Your task to perform on an android device: move a message to another label in the gmail app Image 0: 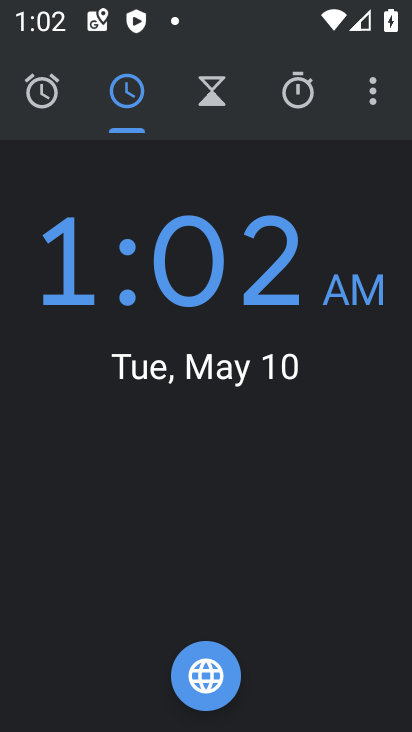
Step 0: press back button
Your task to perform on an android device: move a message to another label in the gmail app Image 1: 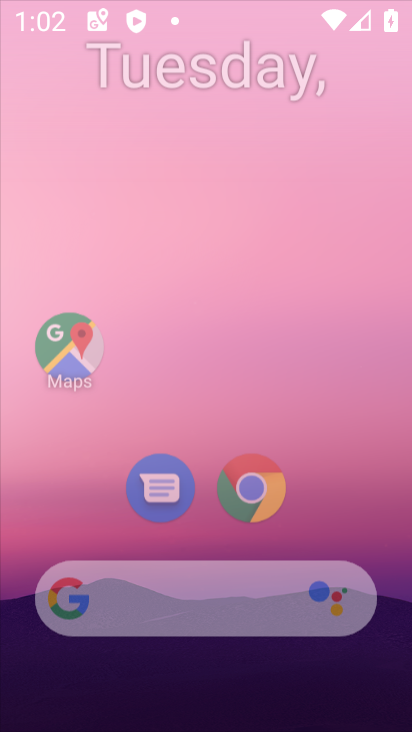
Step 1: press home button
Your task to perform on an android device: move a message to another label in the gmail app Image 2: 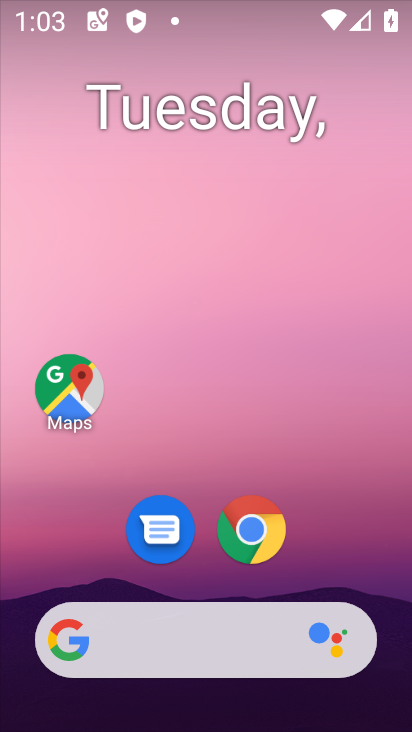
Step 2: drag from (175, 599) to (316, 56)
Your task to perform on an android device: move a message to another label in the gmail app Image 3: 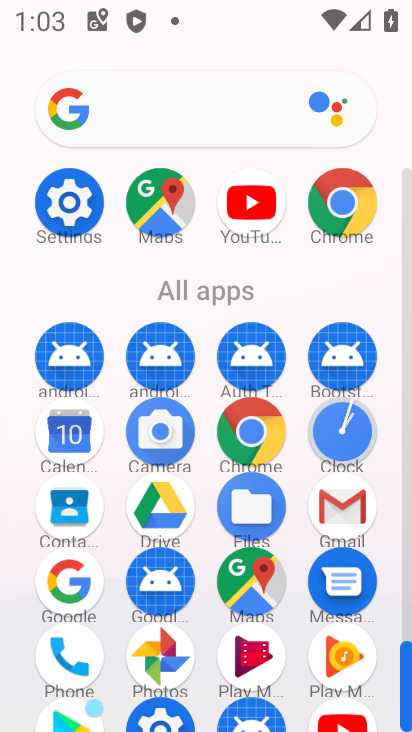
Step 3: click (355, 518)
Your task to perform on an android device: move a message to another label in the gmail app Image 4: 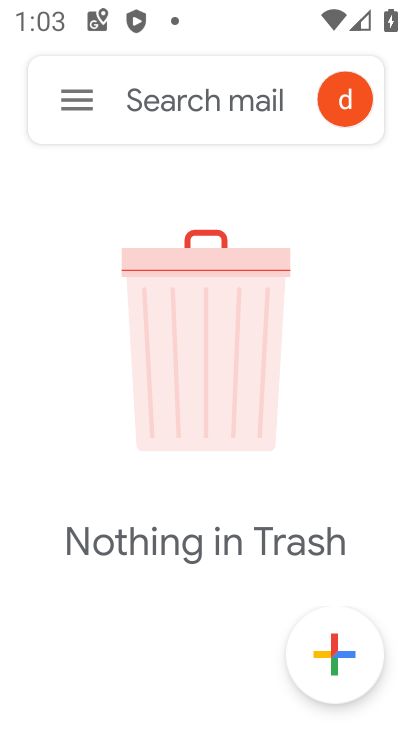
Step 4: click (86, 110)
Your task to perform on an android device: move a message to another label in the gmail app Image 5: 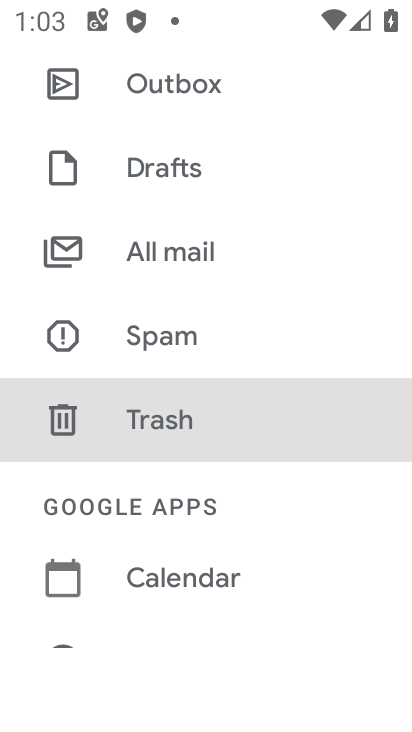
Step 5: click (219, 261)
Your task to perform on an android device: move a message to another label in the gmail app Image 6: 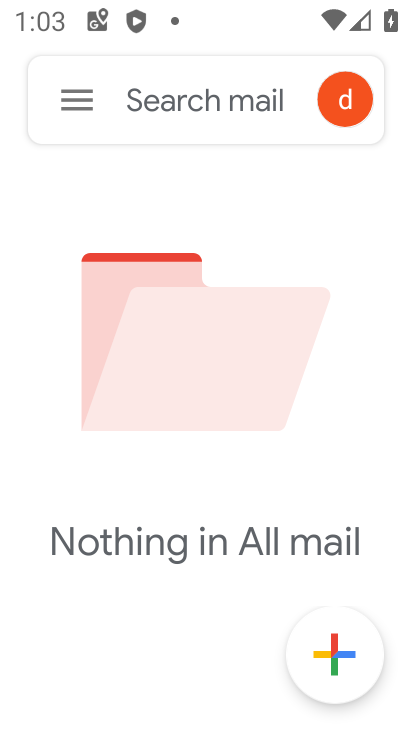
Step 6: task complete